Your task to perform on an android device: Open Google Image 0: 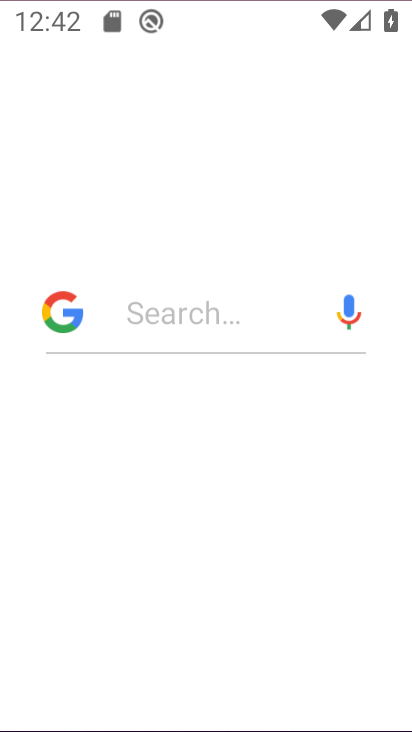
Step 0: drag from (368, 186) to (357, 137)
Your task to perform on an android device: Open Google Image 1: 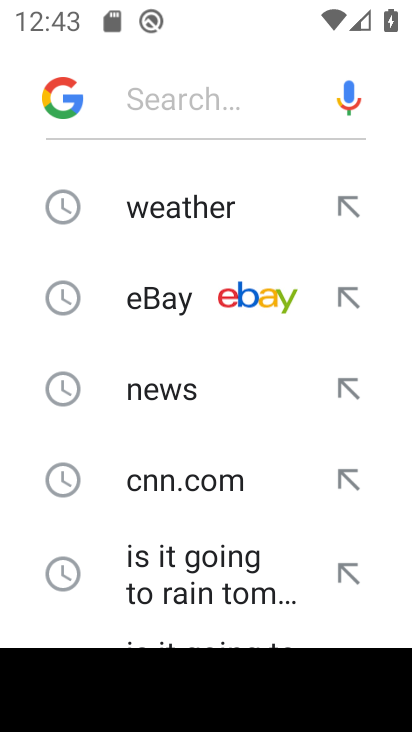
Step 1: press back button
Your task to perform on an android device: Open Google Image 2: 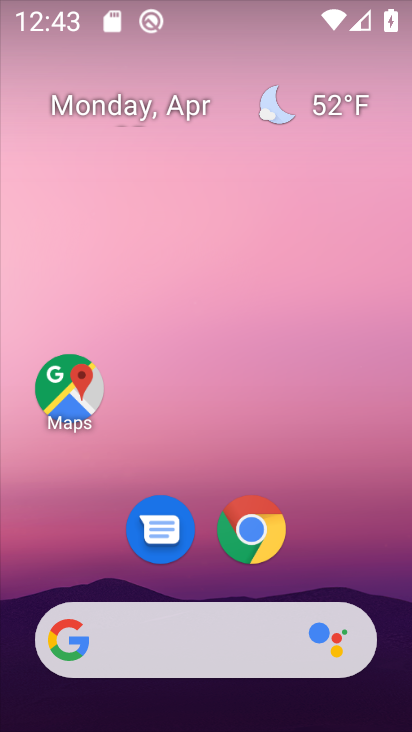
Step 2: drag from (374, 254) to (351, 26)
Your task to perform on an android device: Open Google Image 3: 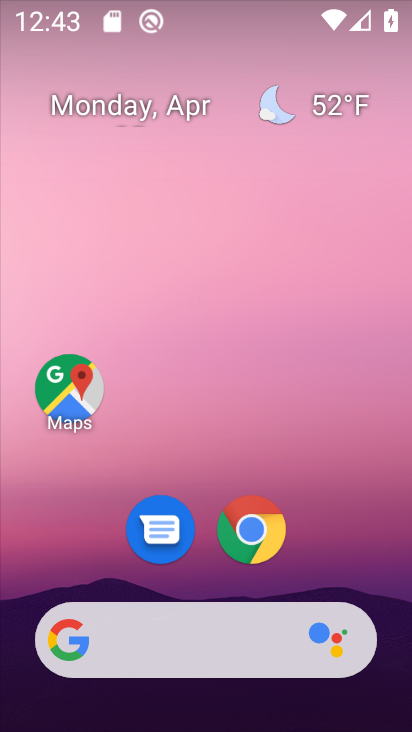
Step 3: drag from (377, 178) to (375, 85)
Your task to perform on an android device: Open Google Image 4: 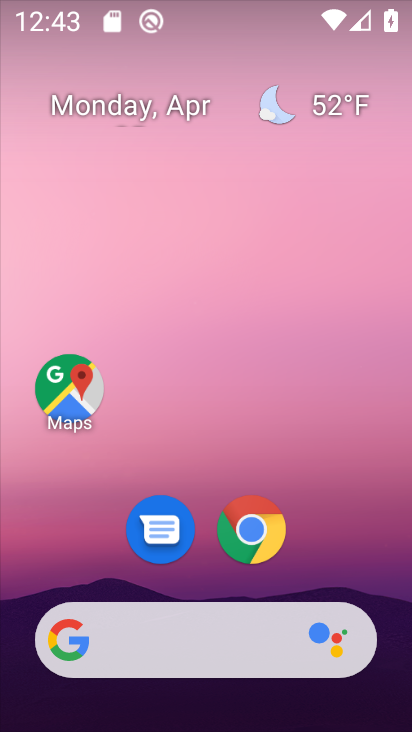
Step 4: drag from (406, 505) to (379, 222)
Your task to perform on an android device: Open Google Image 5: 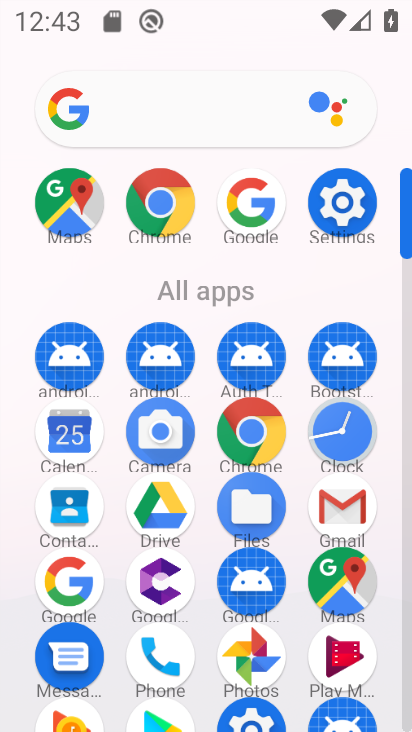
Step 5: click (64, 582)
Your task to perform on an android device: Open Google Image 6: 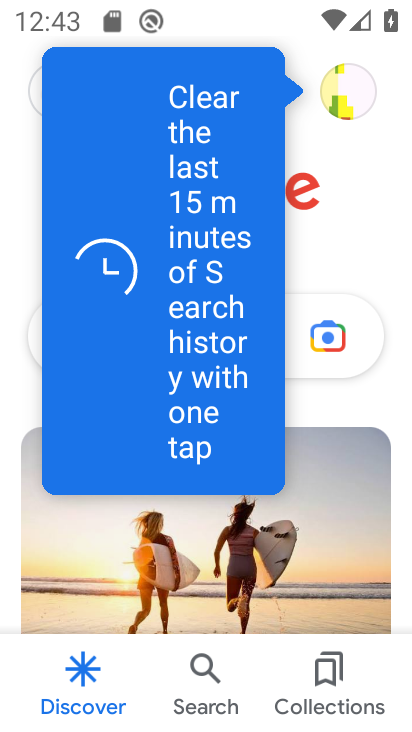
Step 6: click (370, 224)
Your task to perform on an android device: Open Google Image 7: 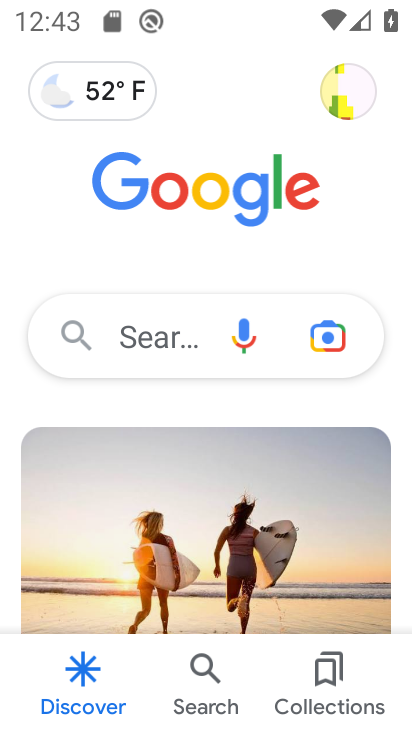
Step 7: task complete